Your task to perform on an android device: all mails in gmail Image 0: 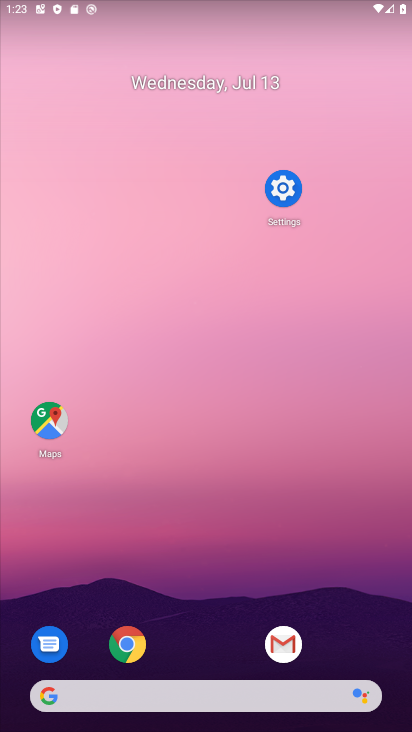
Step 0: press home button
Your task to perform on an android device: all mails in gmail Image 1: 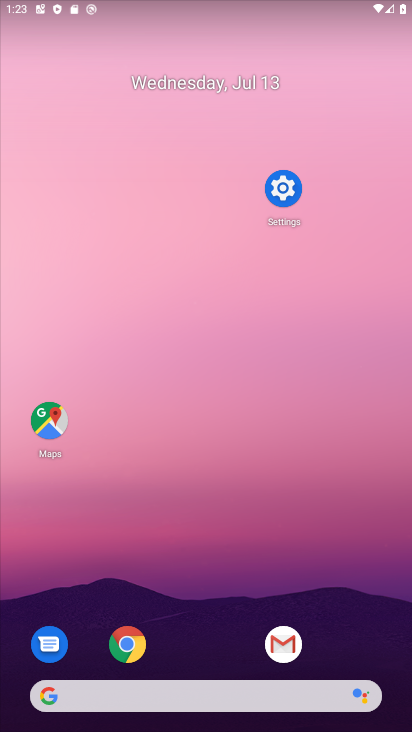
Step 1: click (293, 639)
Your task to perform on an android device: all mails in gmail Image 2: 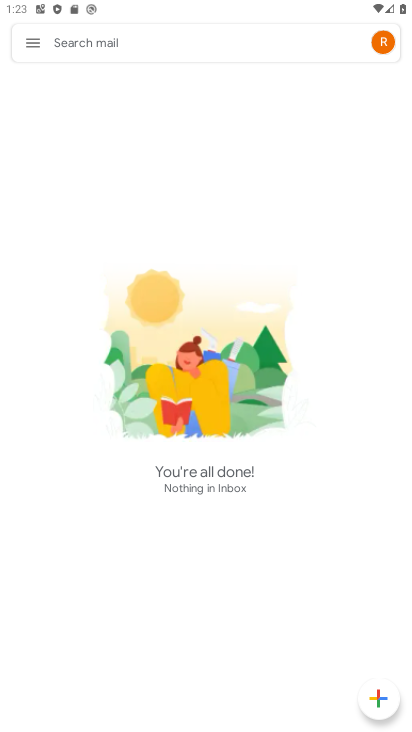
Step 2: click (43, 33)
Your task to perform on an android device: all mails in gmail Image 3: 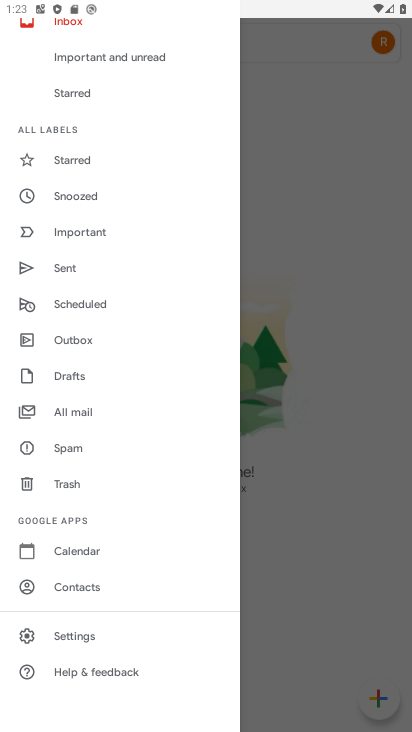
Step 3: click (94, 413)
Your task to perform on an android device: all mails in gmail Image 4: 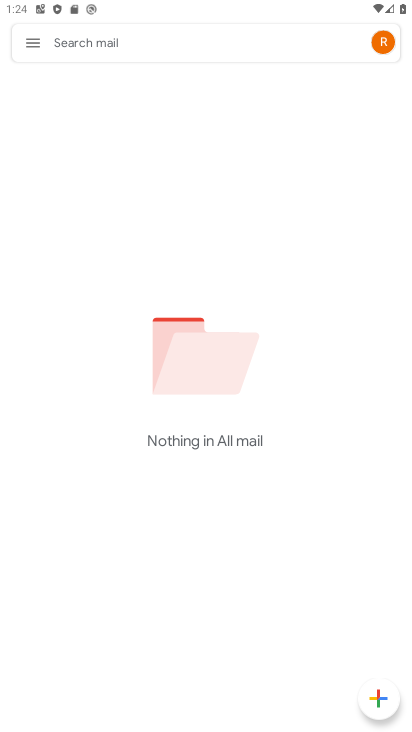
Step 4: task complete